Your task to perform on an android device: install app "VLC for Android" Image 0: 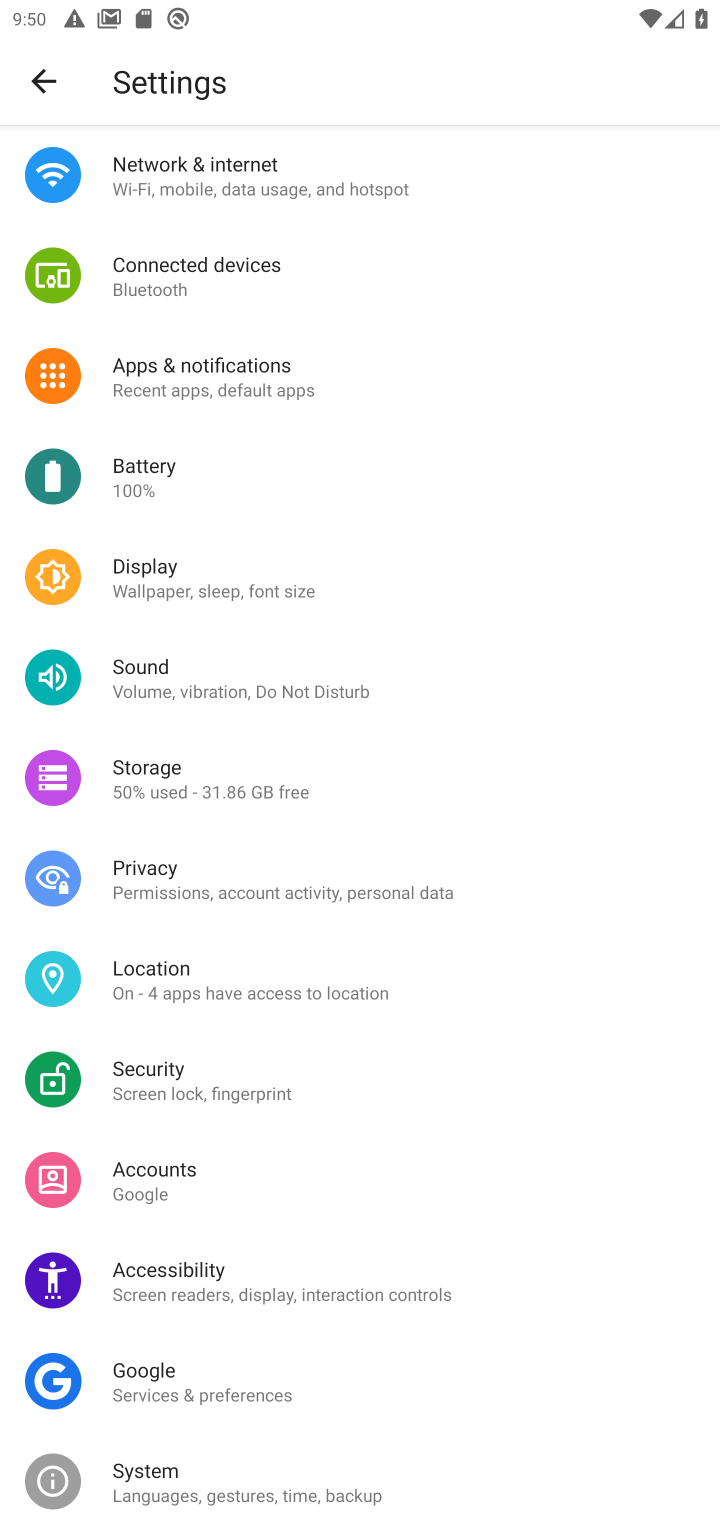
Step 0: press home button
Your task to perform on an android device: install app "VLC for Android" Image 1: 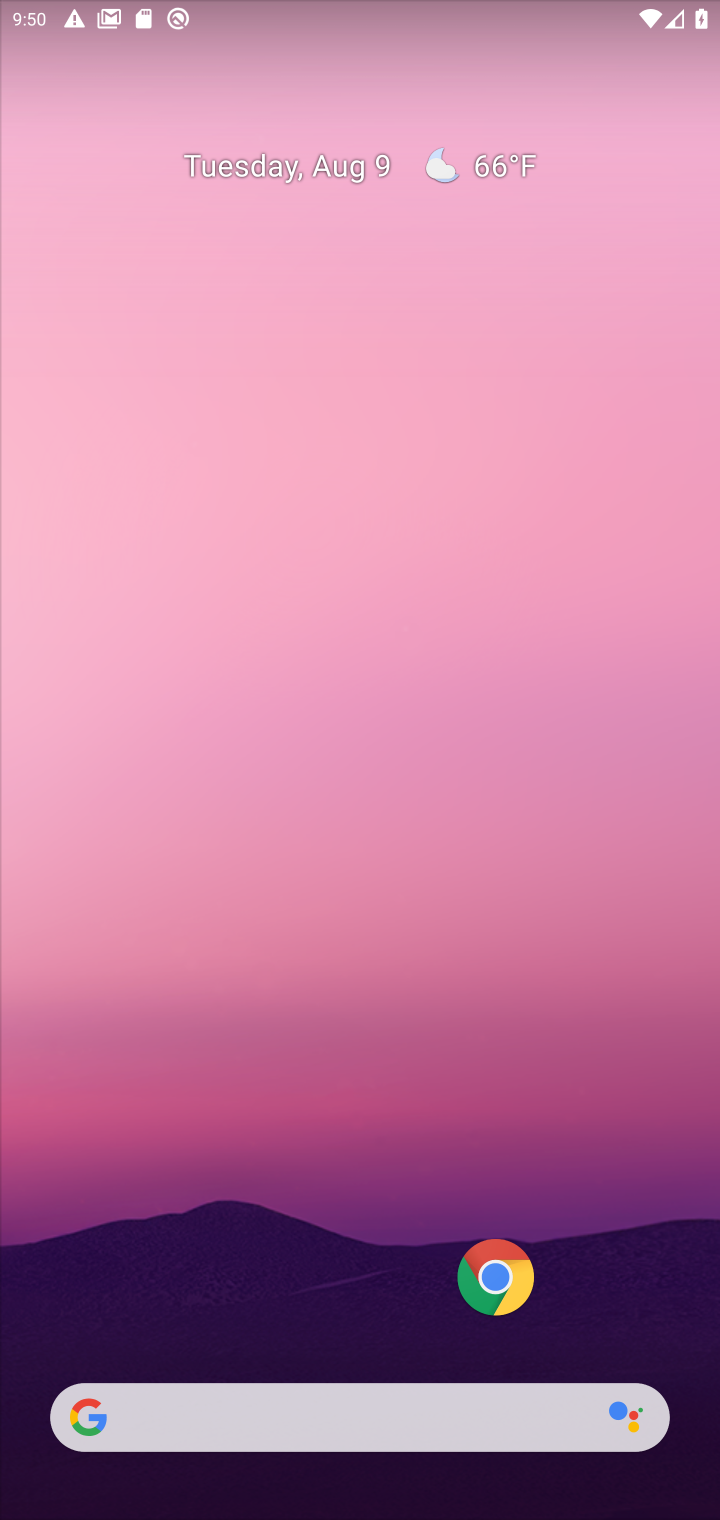
Step 1: drag from (365, 1337) to (257, 48)
Your task to perform on an android device: install app "VLC for Android" Image 2: 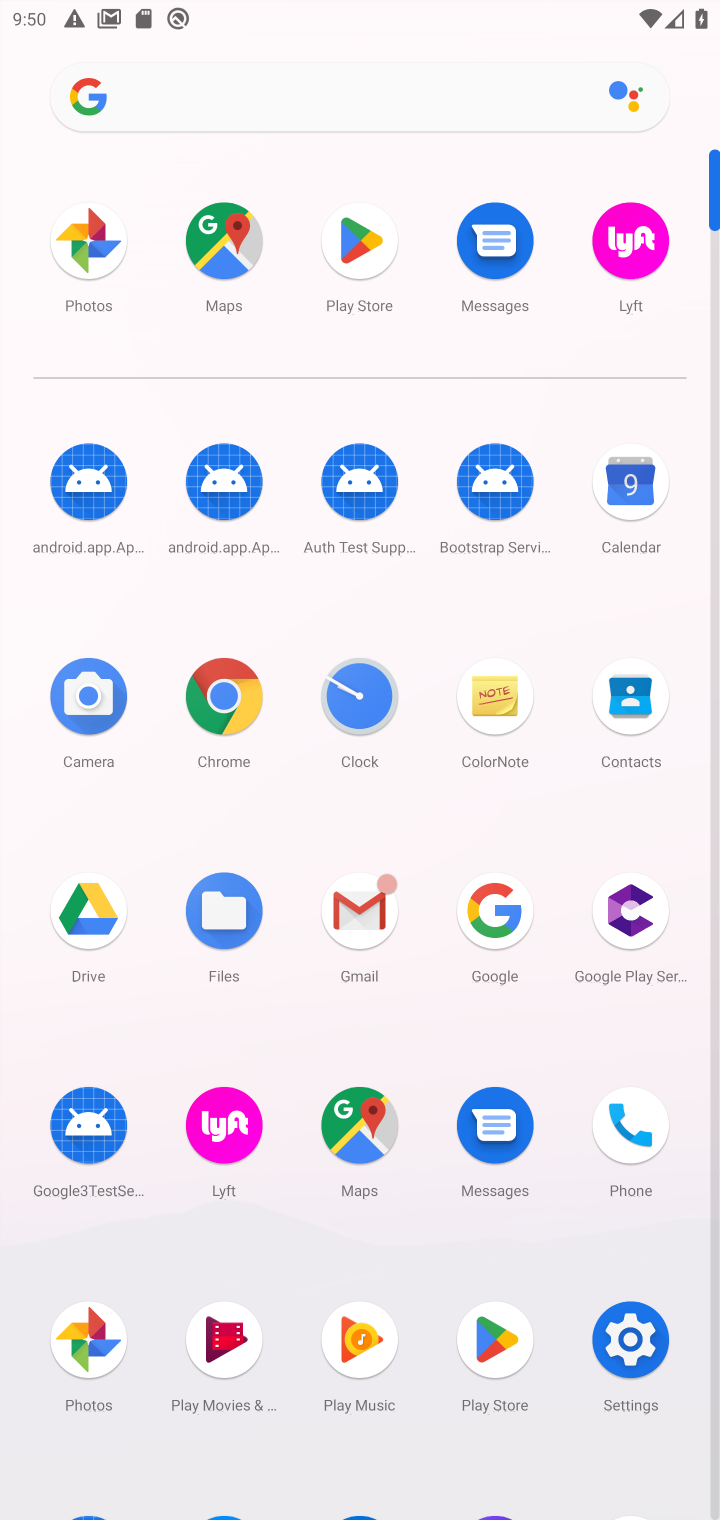
Step 2: drag from (287, 1254) to (175, 240)
Your task to perform on an android device: install app "VLC for Android" Image 3: 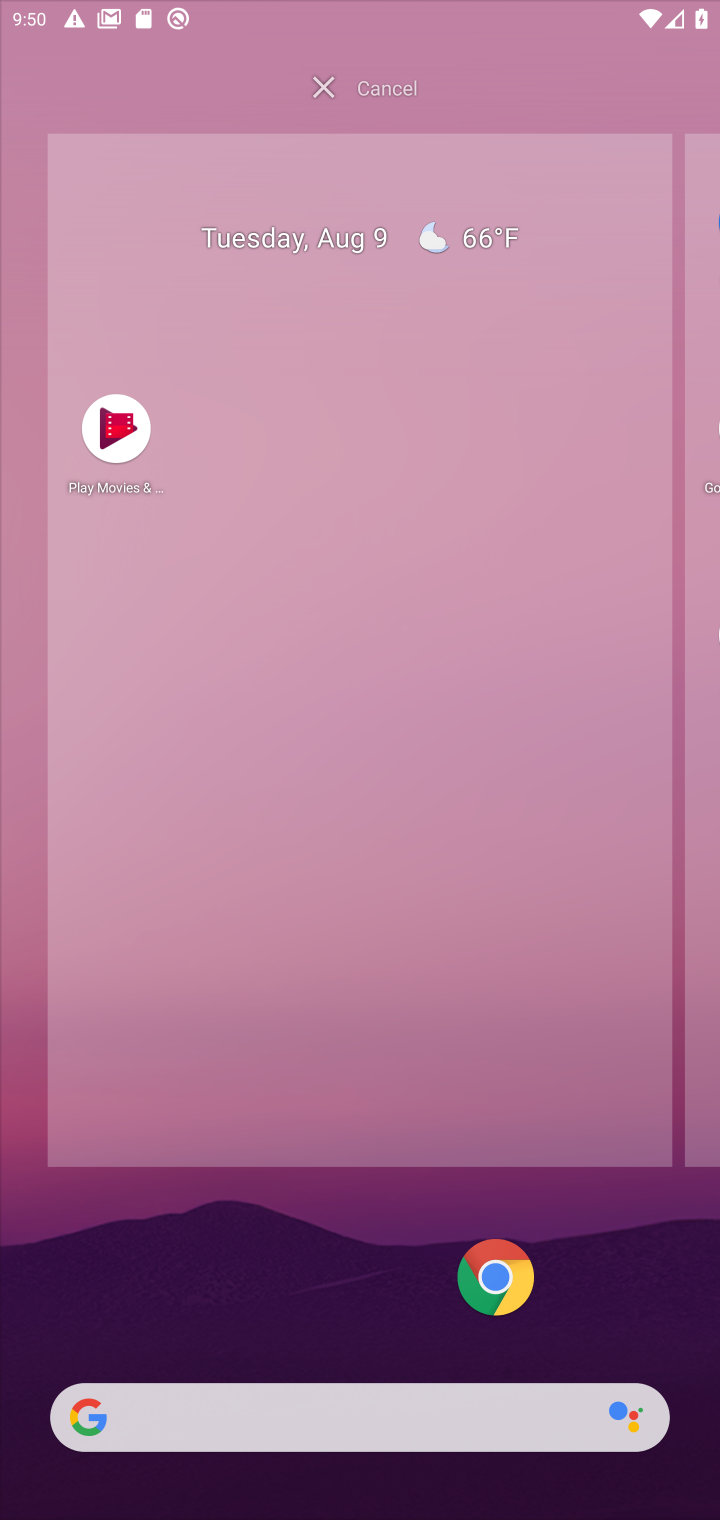
Step 3: drag from (452, 1358) to (284, 133)
Your task to perform on an android device: install app "VLC for Android" Image 4: 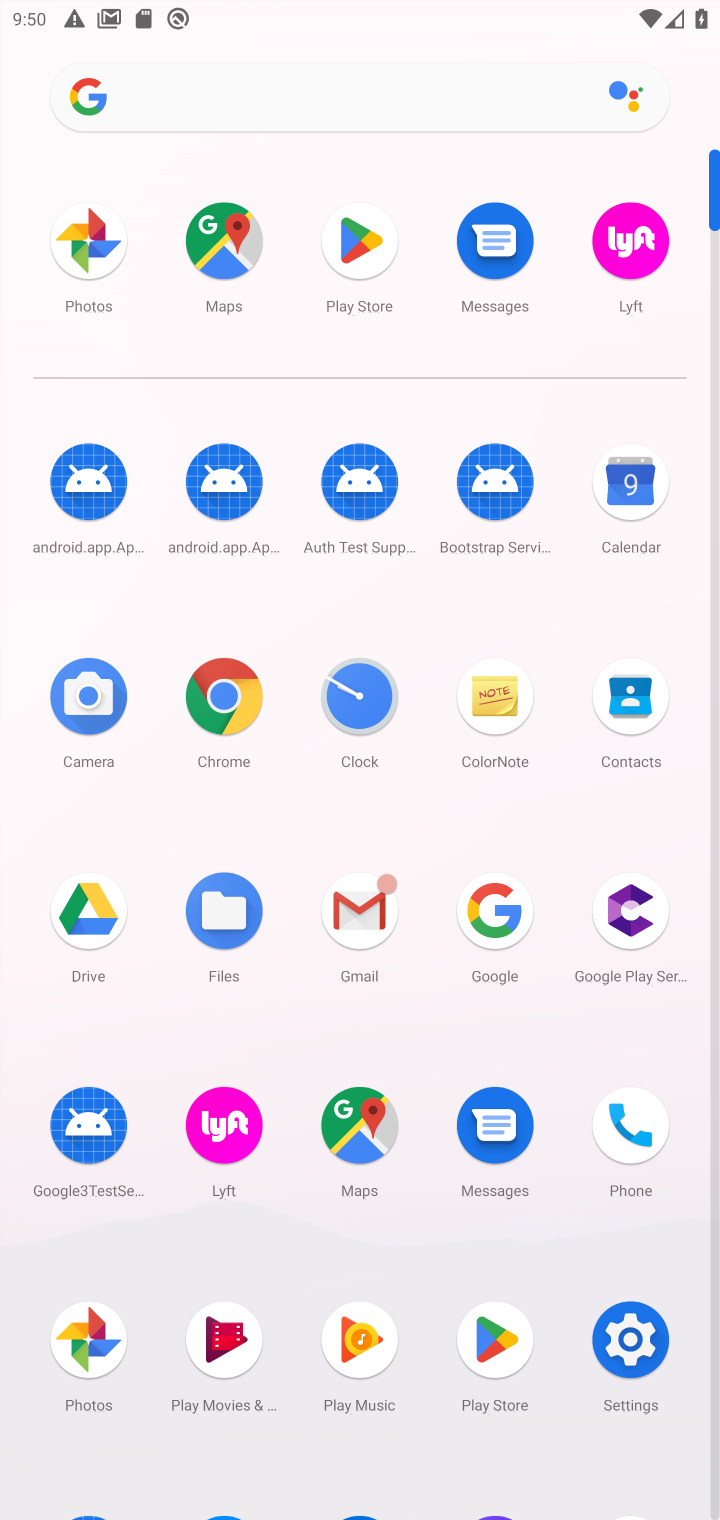
Step 4: click (484, 1317)
Your task to perform on an android device: install app "VLC for Android" Image 5: 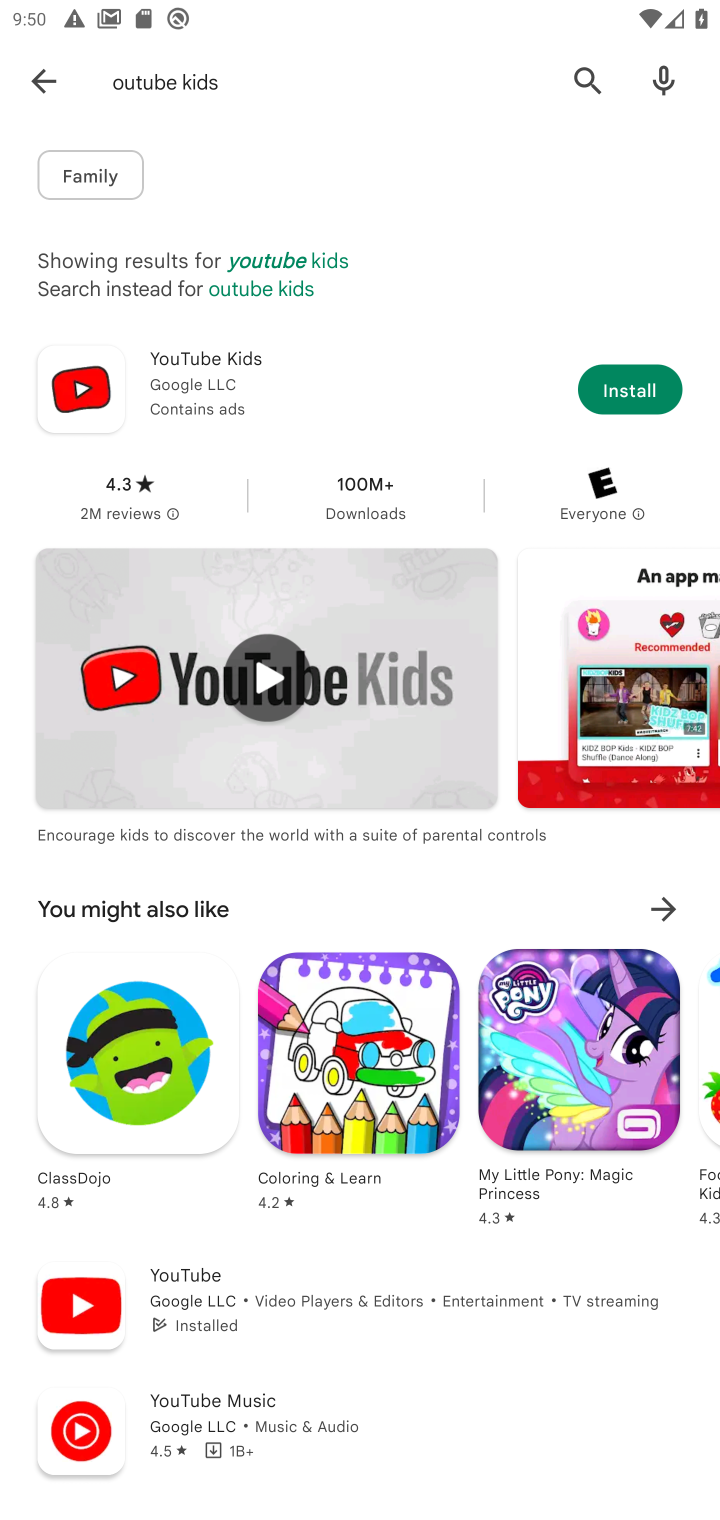
Step 5: click (34, 90)
Your task to perform on an android device: install app "VLC for Android" Image 6: 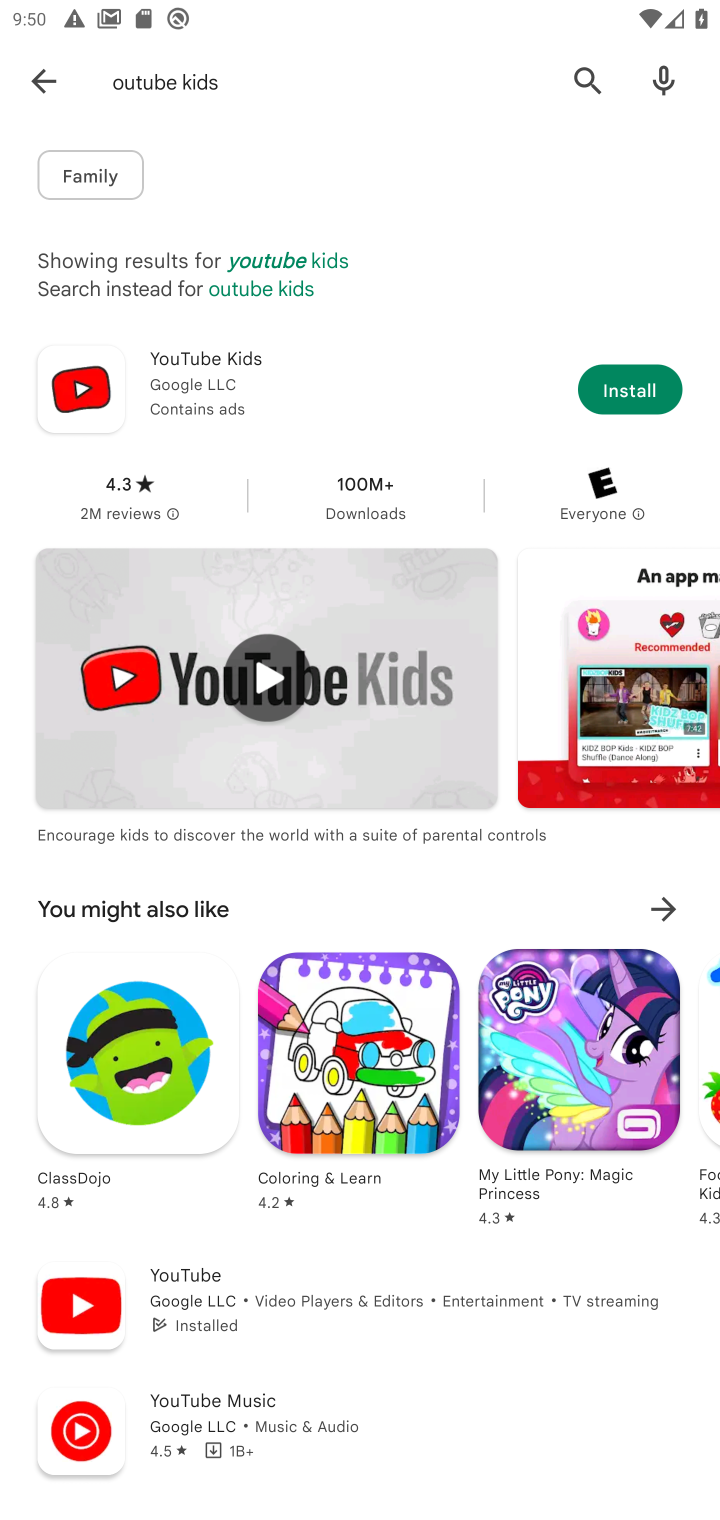
Step 6: click (35, 83)
Your task to perform on an android device: install app "VLC for Android" Image 7: 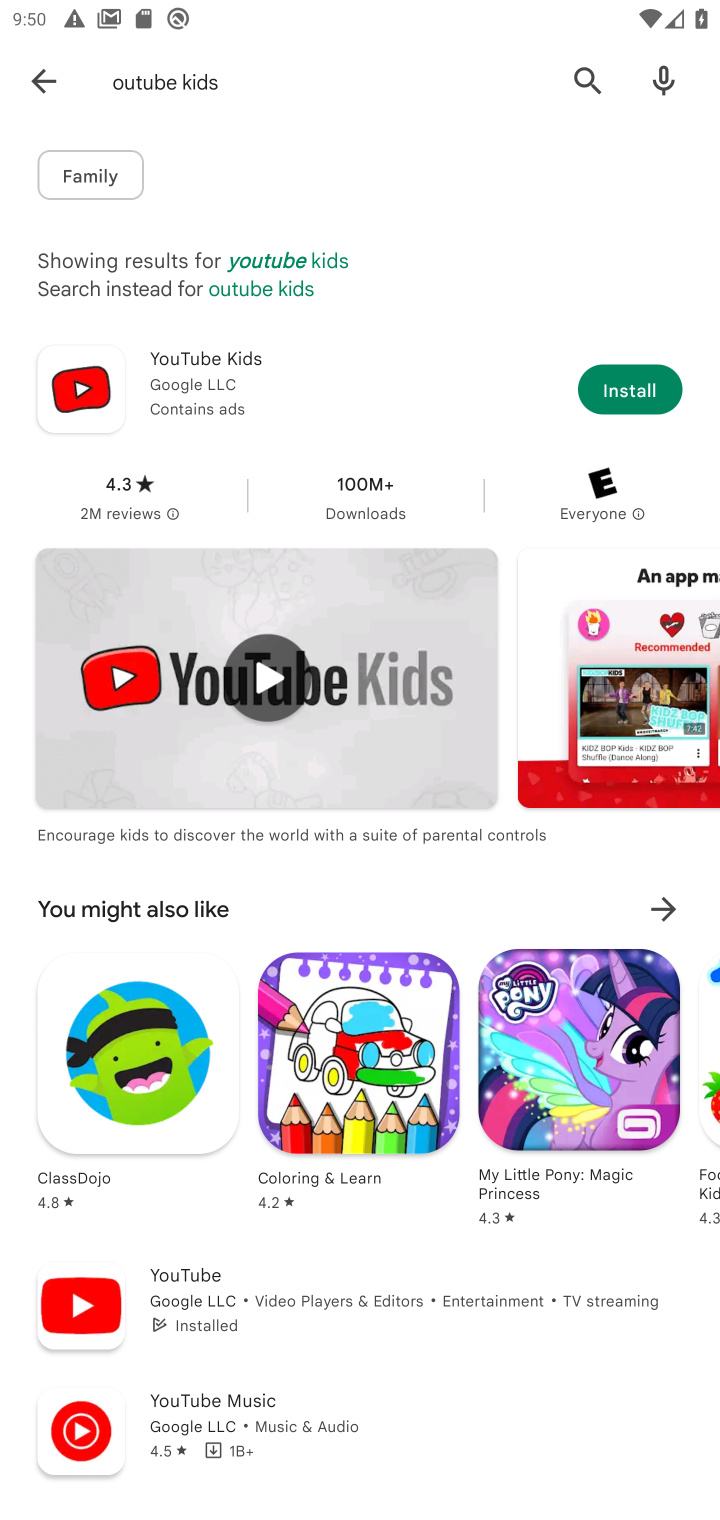
Step 7: click (35, 83)
Your task to perform on an android device: install app "VLC for Android" Image 8: 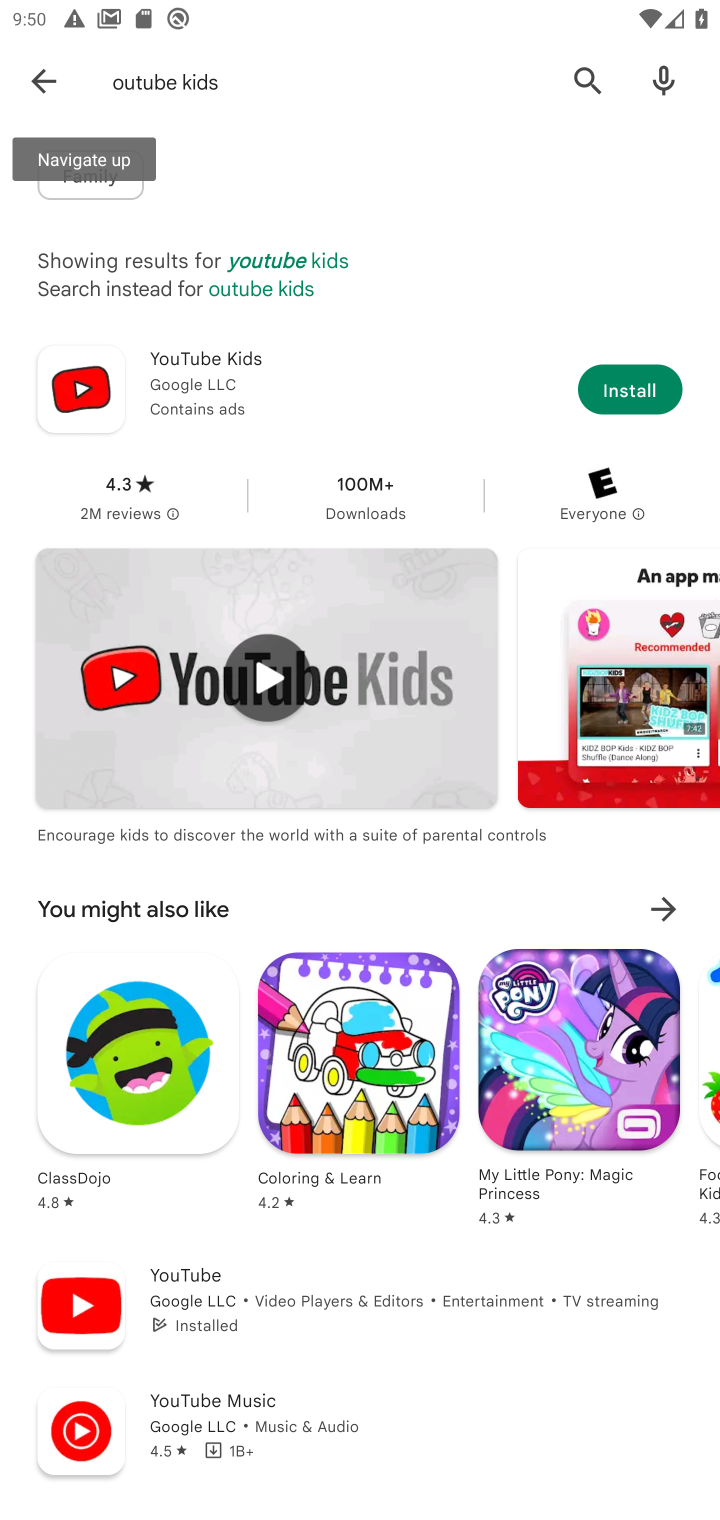
Step 8: click (35, 83)
Your task to perform on an android device: install app "VLC for Android" Image 9: 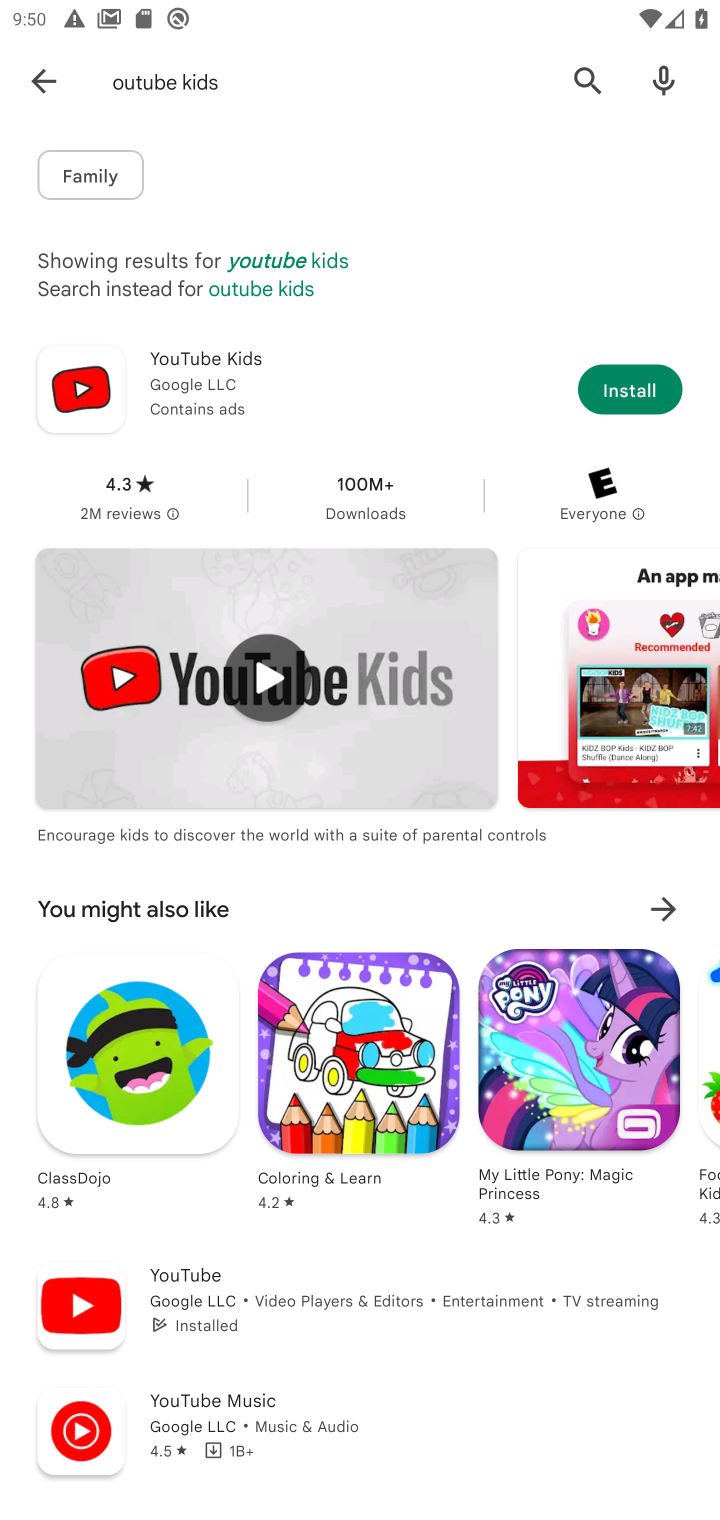
Step 9: click (35, 83)
Your task to perform on an android device: install app "VLC for Android" Image 10: 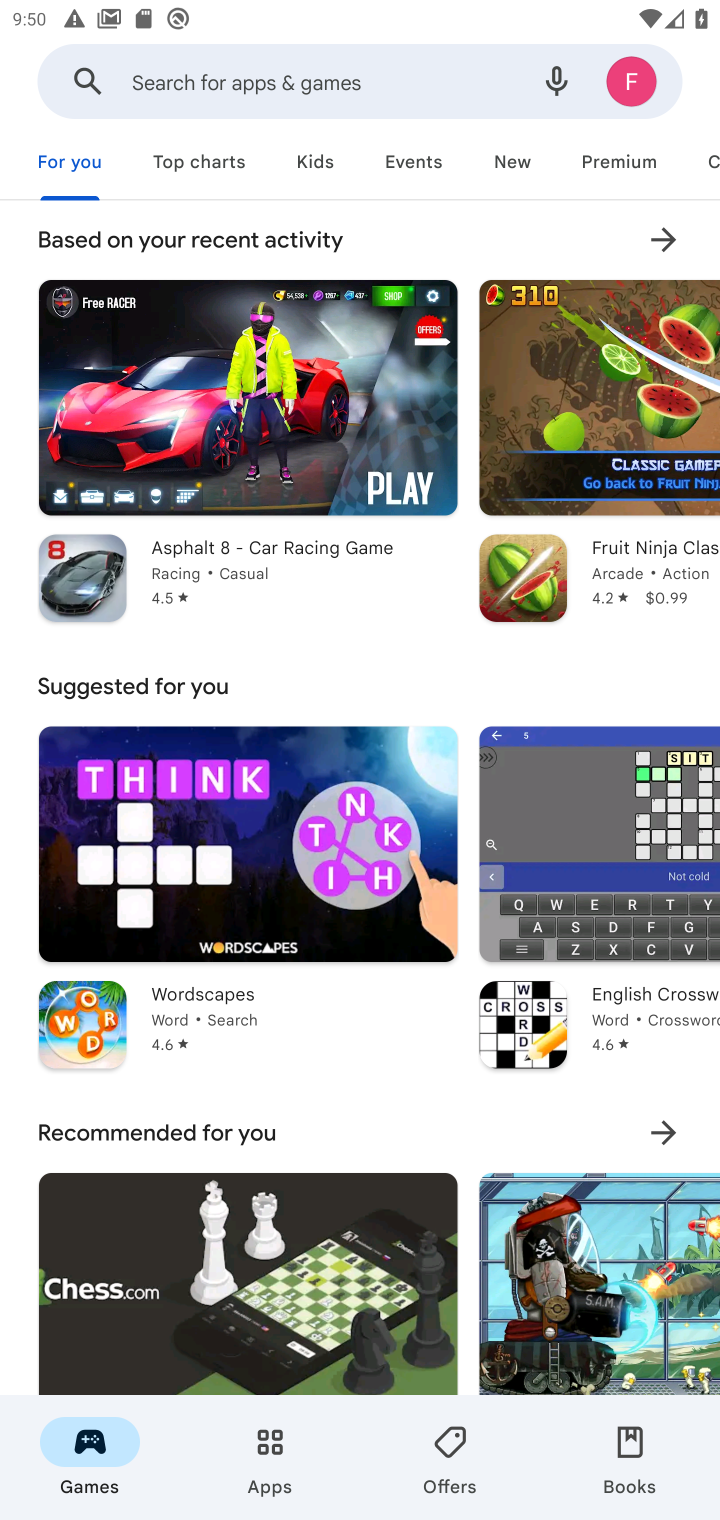
Step 10: click (216, 72)
Your task to perform on an android device: install app "VLC for Android" Image 11: 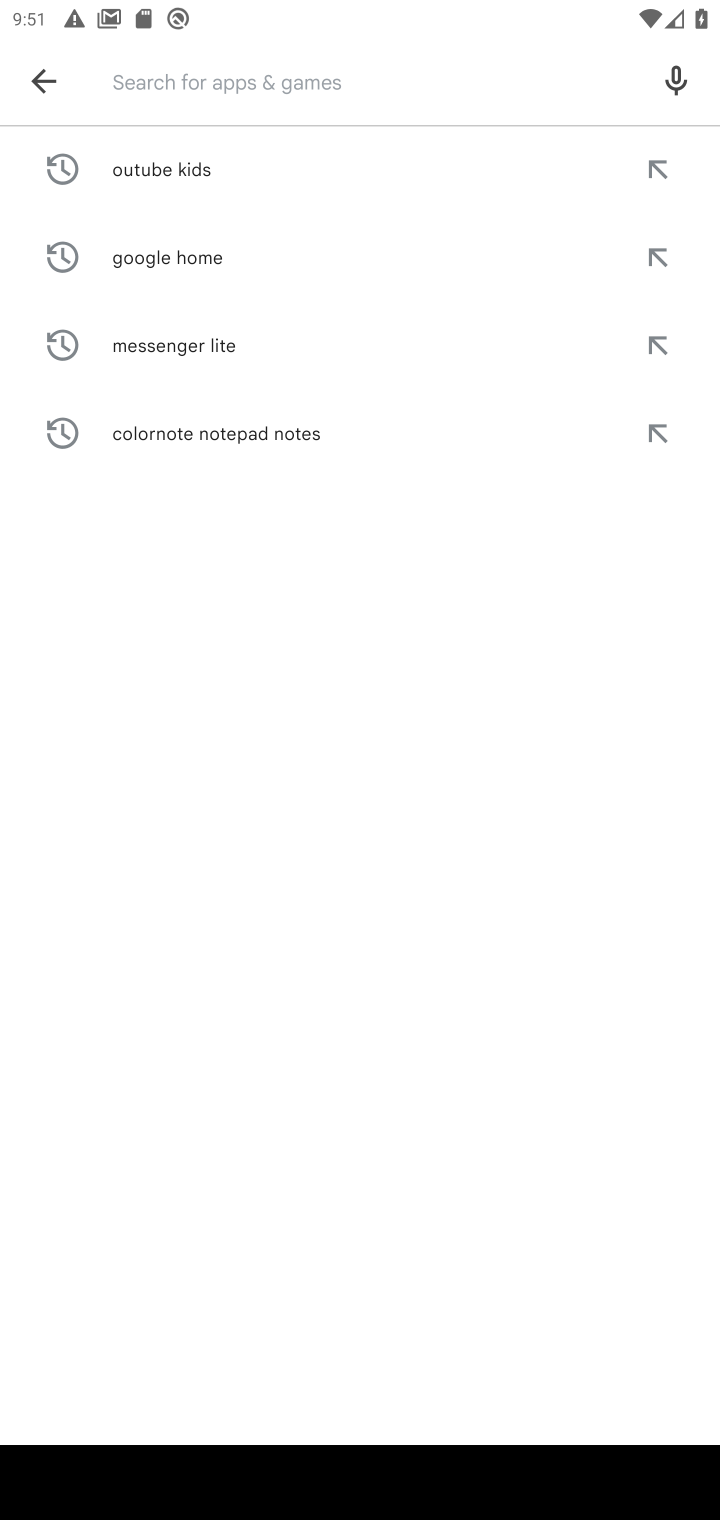
Step 11: type "VLC for Android"
Your task to perform on an android device: install app "VLC for Android" Image 12: 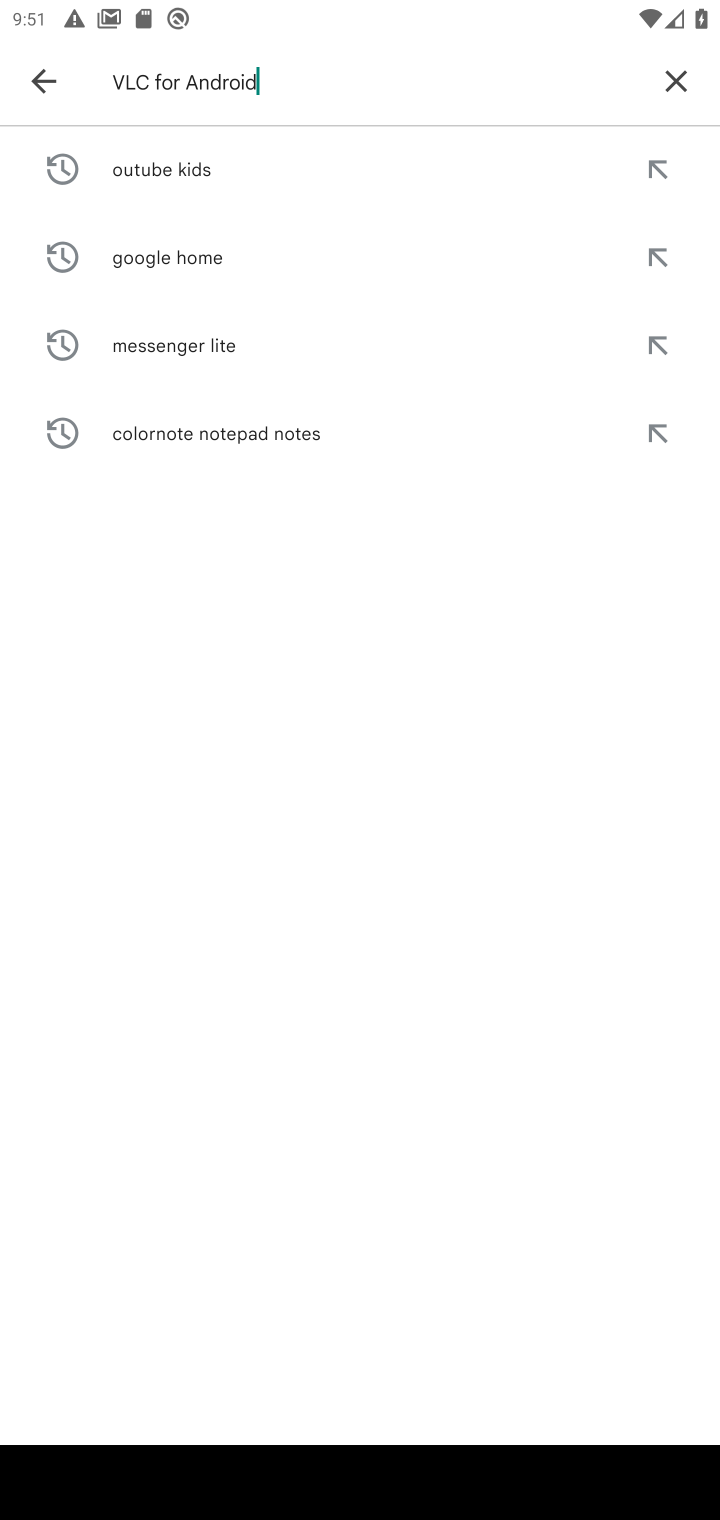
Step 12: type ""
Your task to perform on an android device: install app "VLC for Android" Image 13: 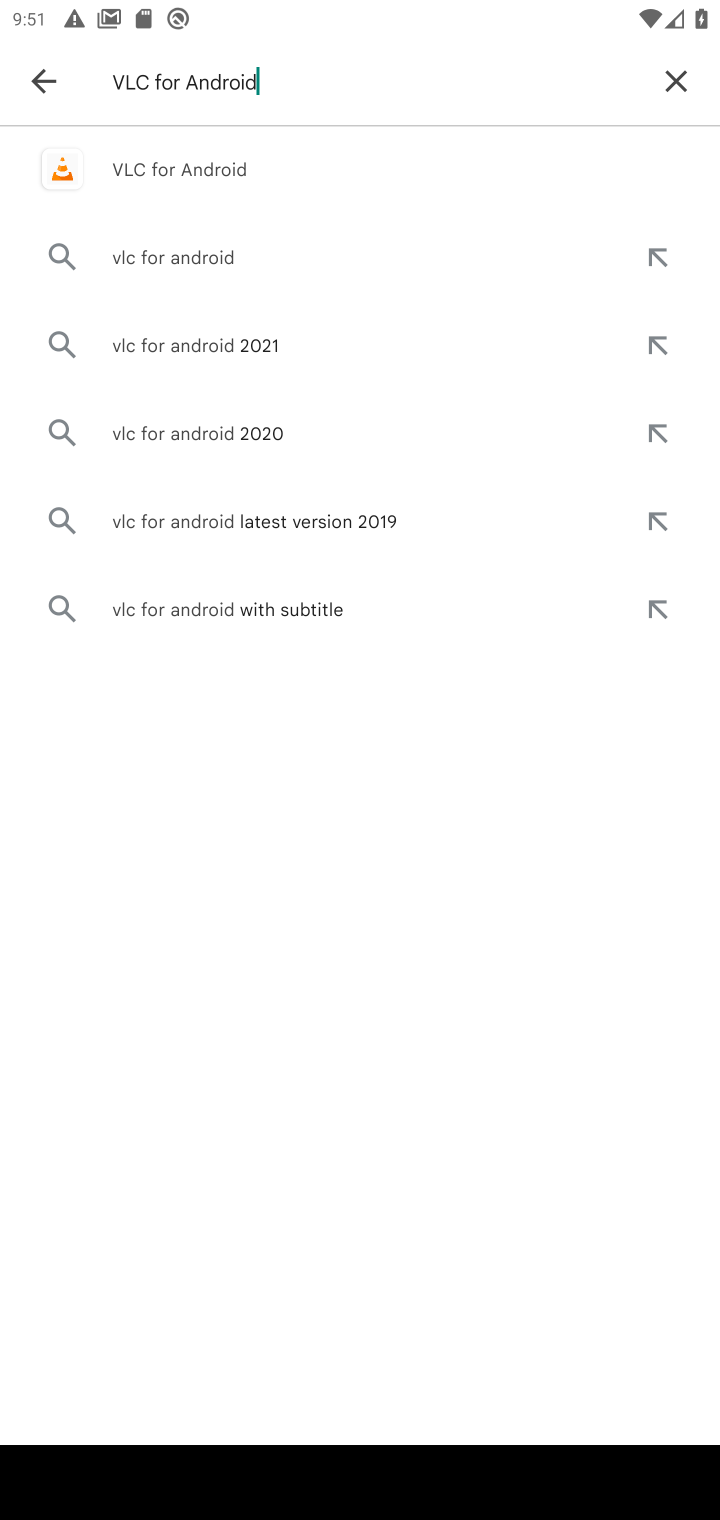
Step 13: click (212, 168)
Your task to perform on an android device: install app "VLC for Android" Image 14: 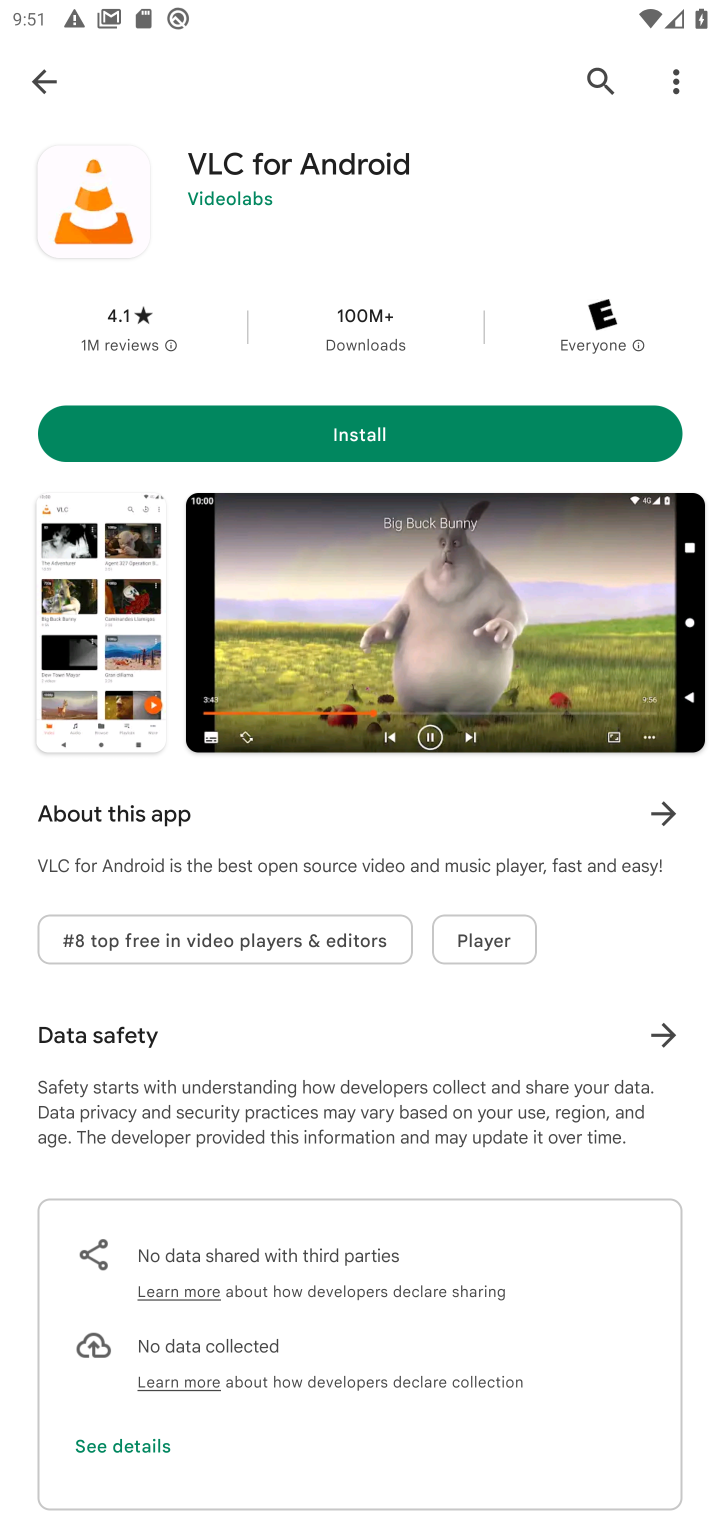
Step 14: click (443, 418)
Your task to perform on an android device: install app "VLC for Android" Image 15: 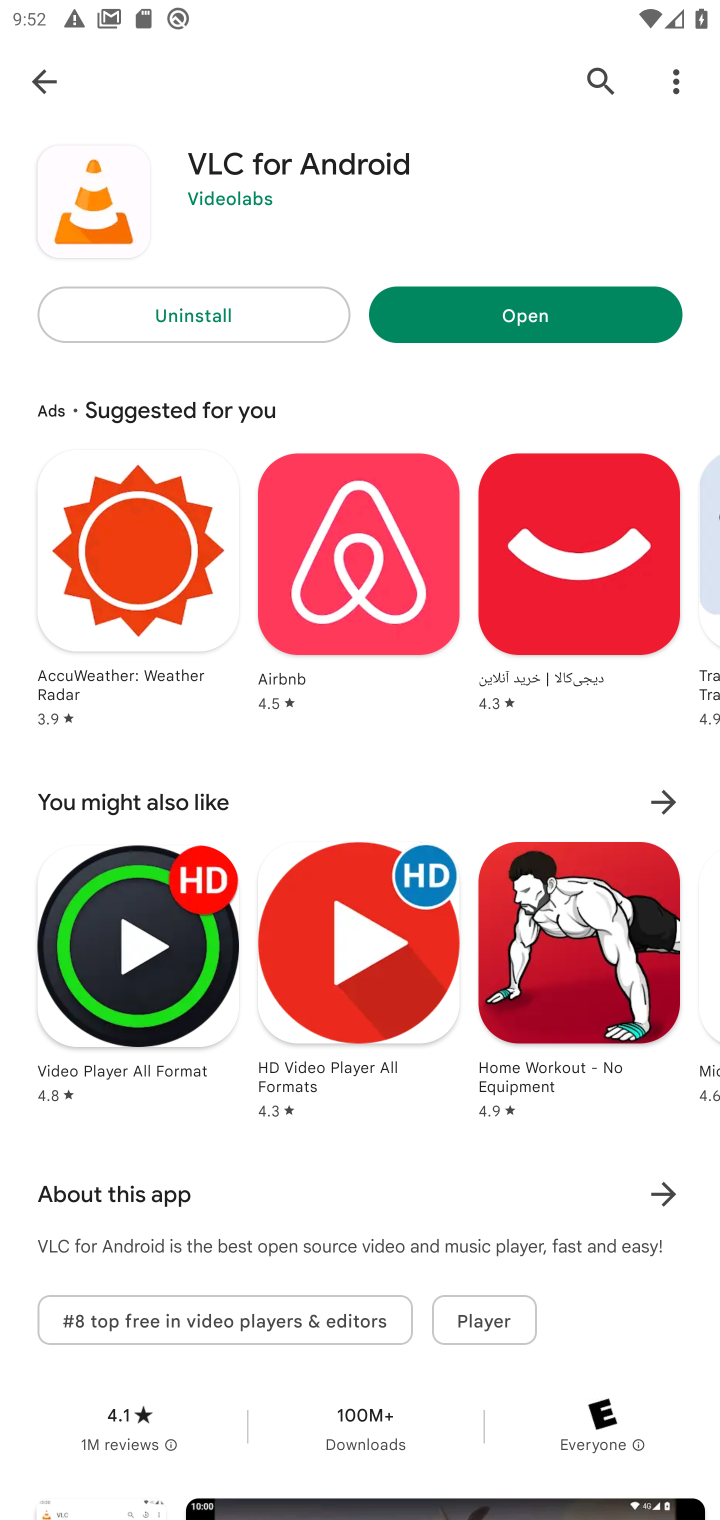
Step 15: click (577, 284)
Your task to perform on an android device: install app "VLC for Android" Image 16: 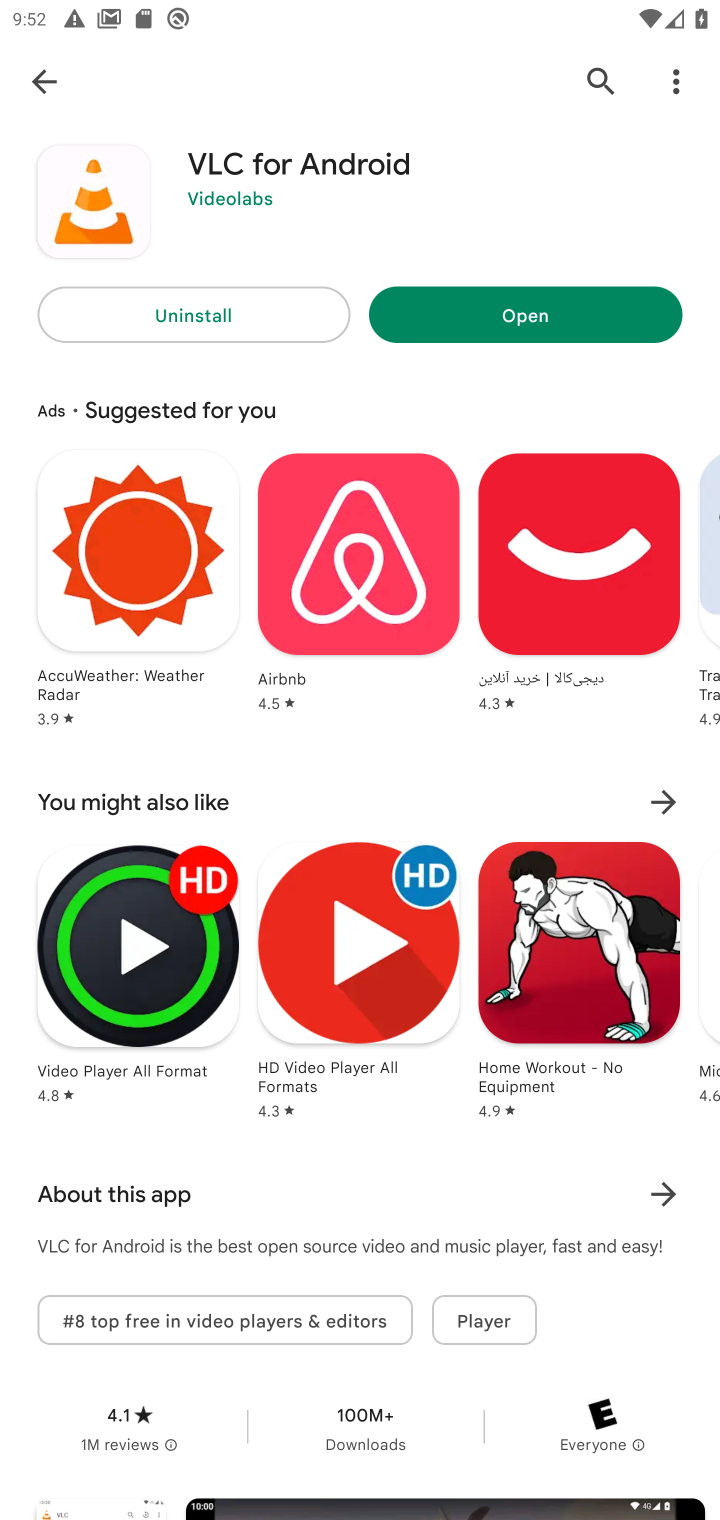
Step 16: task complete